Your task to perform on an android device: Search for seafood restaurants on Google Maps Image 0: 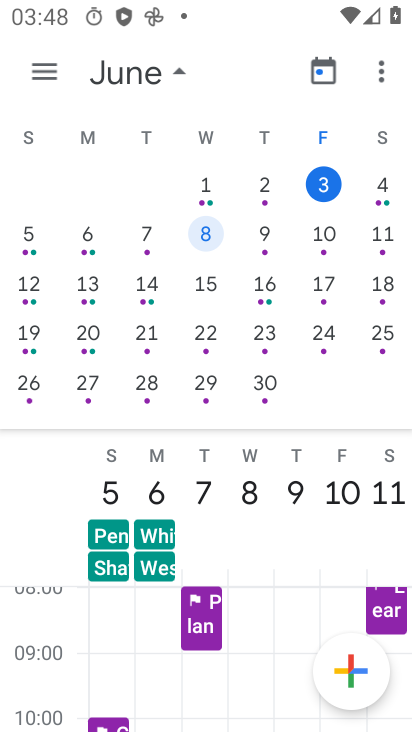
Step 0: press home button
Your task to perform on an android device: Search for seafood restaurants on Google Maps Image 1: 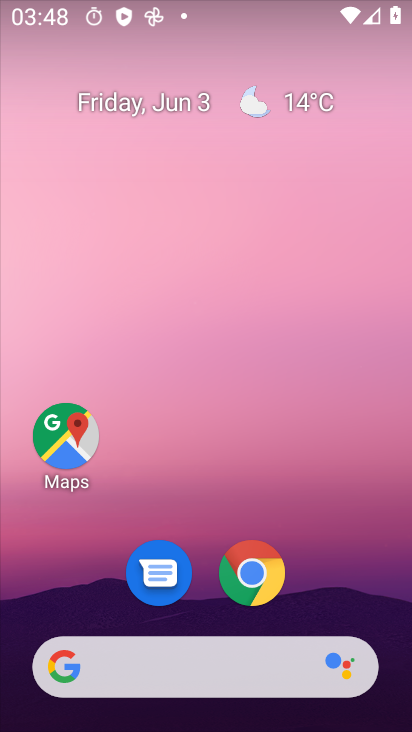
Step 1: drag from (240, 650) to (321, 0)
Your task to perform on an android device: Search for seafood restaurants on Google Maps Image 2: 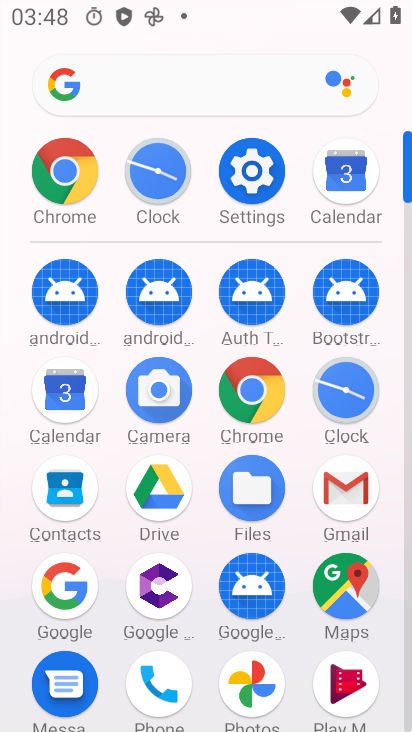
Step 2: click (345, 614)
Your task to perform on an android device: Search for seafood restaurants on Google Maps Image 3: 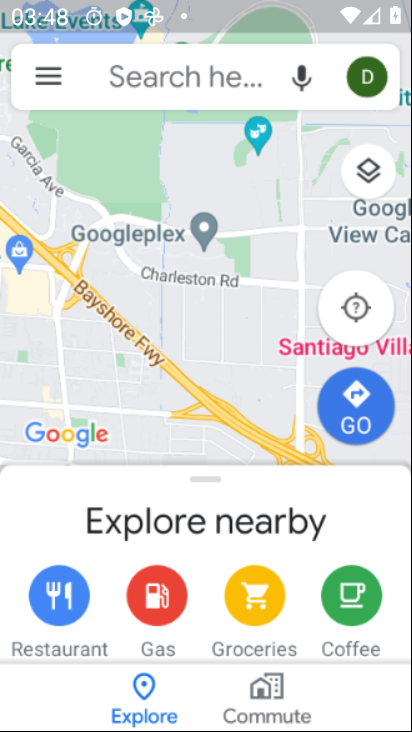
Step 3: click (183, 86)
Your task to perform on an android device: Search for seafood restaurants on Google Maps Image 4: 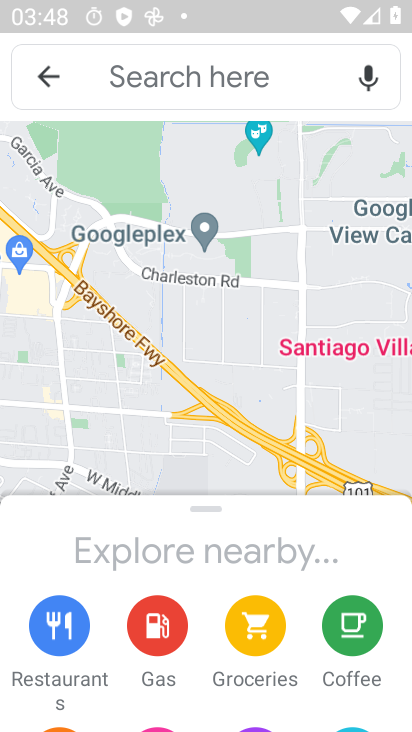
Step 4: click (170, 74)
Your task to perform on an android device: Search for seafood restaurants on Google Maps Image 5: 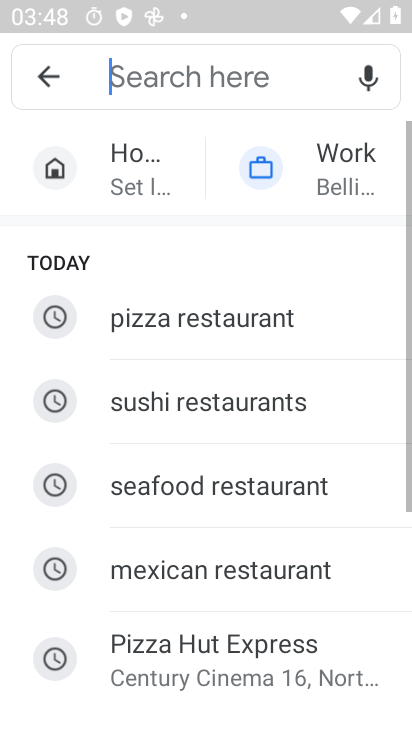
Step 5: click (170, 74)
Your task to perform on an android device: Search for seafood restaurants on Google Maps Image 6: 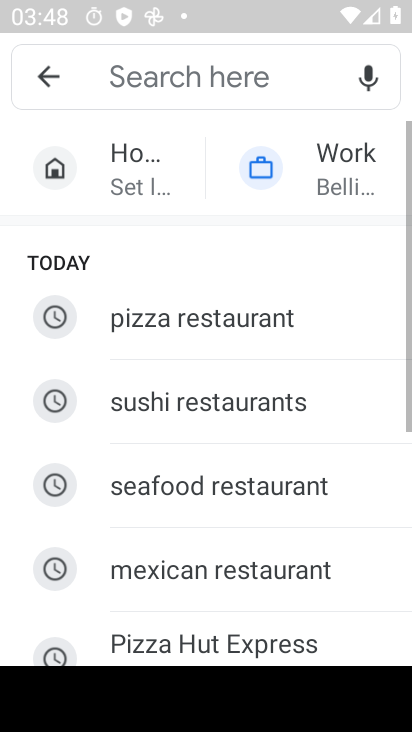
Step 6: click (212, 482)
Your task to perform on an android device: Search for seafood restaurants on Google Maps Image 7: 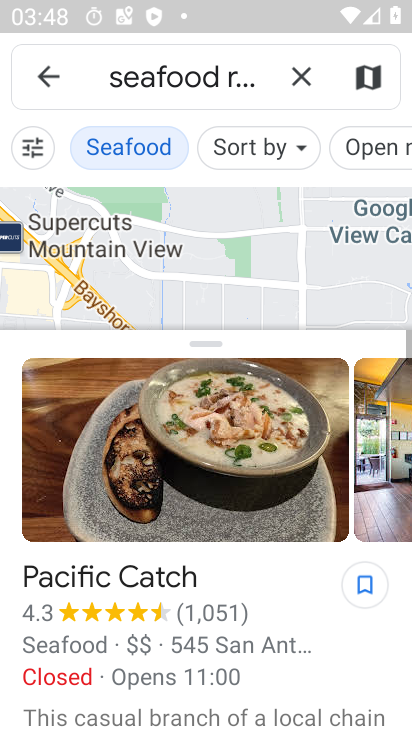
Step 7: task complete